Your task to perform on an android device: Open calendar and show me the fourth week of next month Image 0: 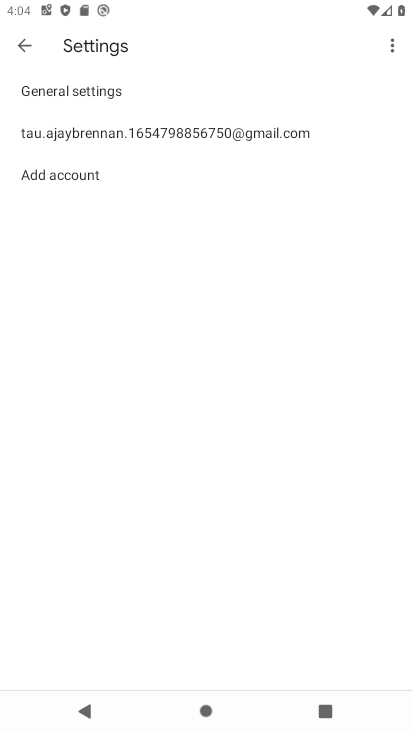
Step 0: press home button
Your task to perform on an android device: Open calendar and show me the fourth week of next month Image 1: 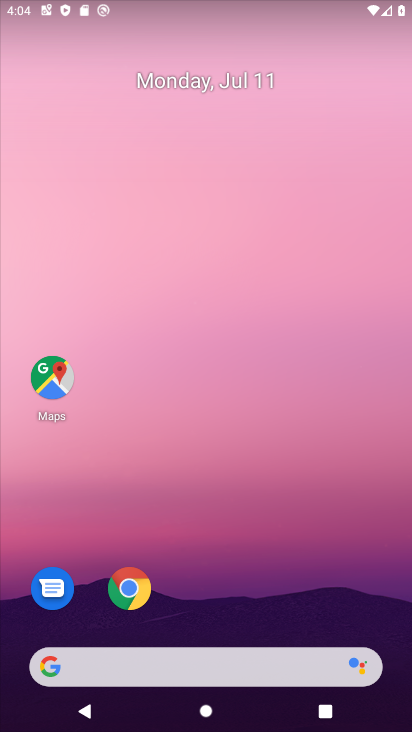
Step 1: drag from (343, 603) to (328, 158)
Your task to perform on an android device: Open calendar and show me the fourth week of next month Image 2: 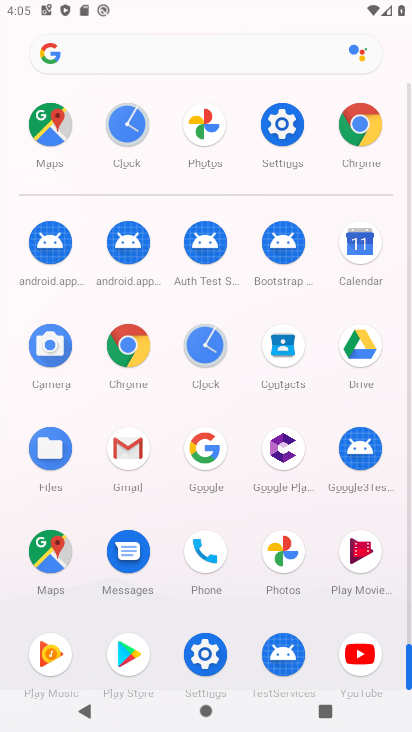
Step 2: click (361, 251)
Your task to perform on an android device: Open calendar and show me the fourth week of next month Image 3: 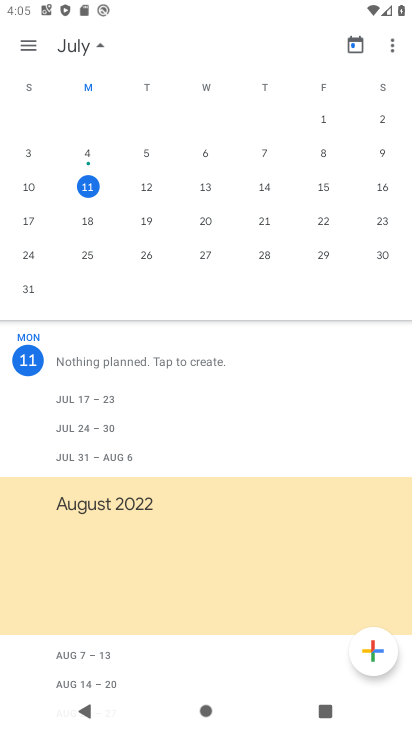
Step 3: drag from (391, 95) to (14, 112)
Your task to perform on an android device: Open calendar and show me the fourth week of next month Image 4: 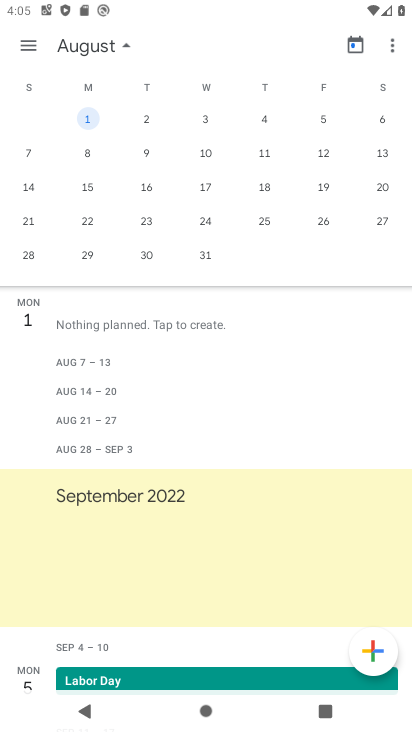
Step 4: click (86, 224)
Your task to perform on an android device: Open calendar and show me the fourth week of next month Image 5: 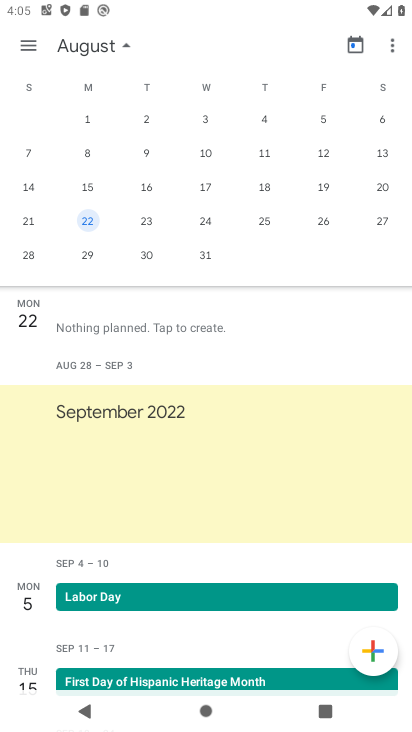
Step 5: task complete